Your task to perform on an android device: Open Google Image 0: 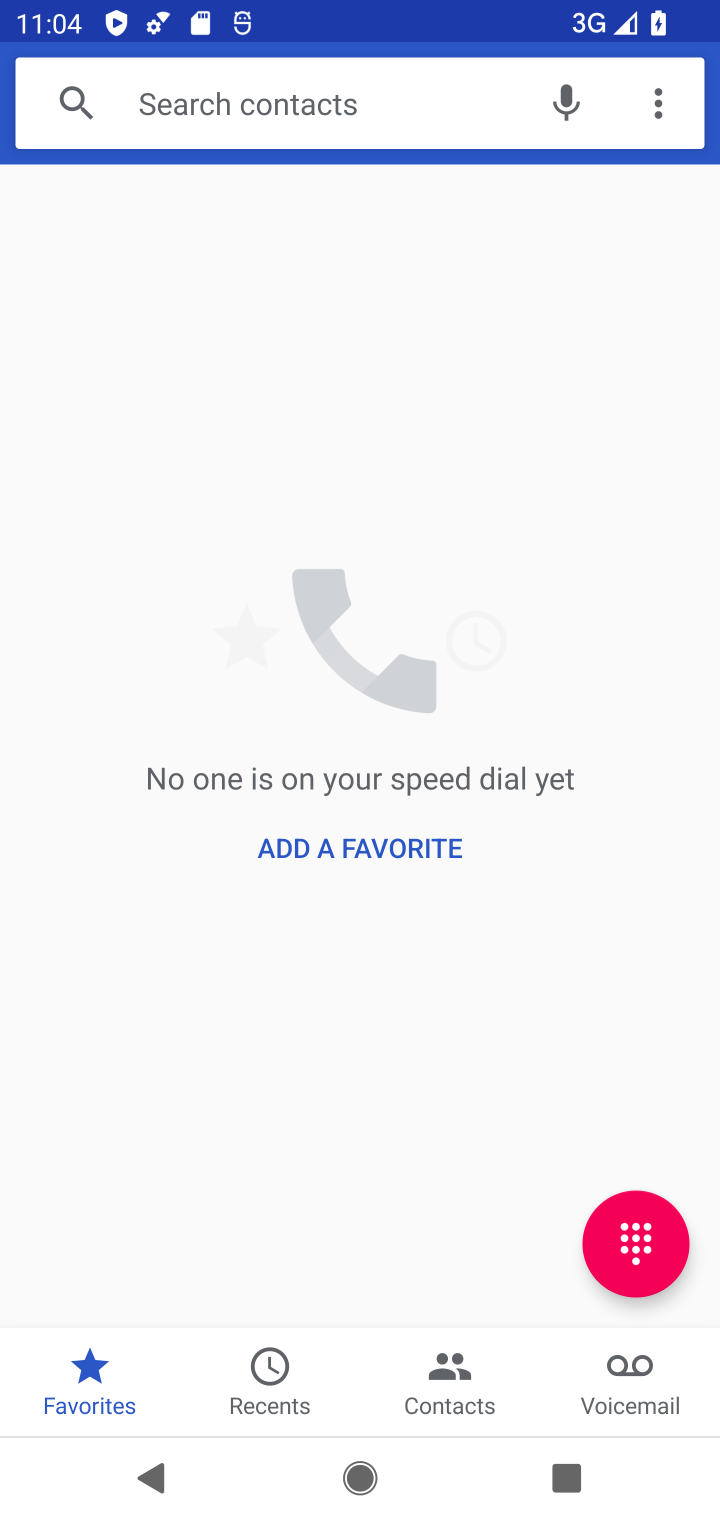
Step 0: press home button
Your task to perform on an android device: Open Google Image 1: 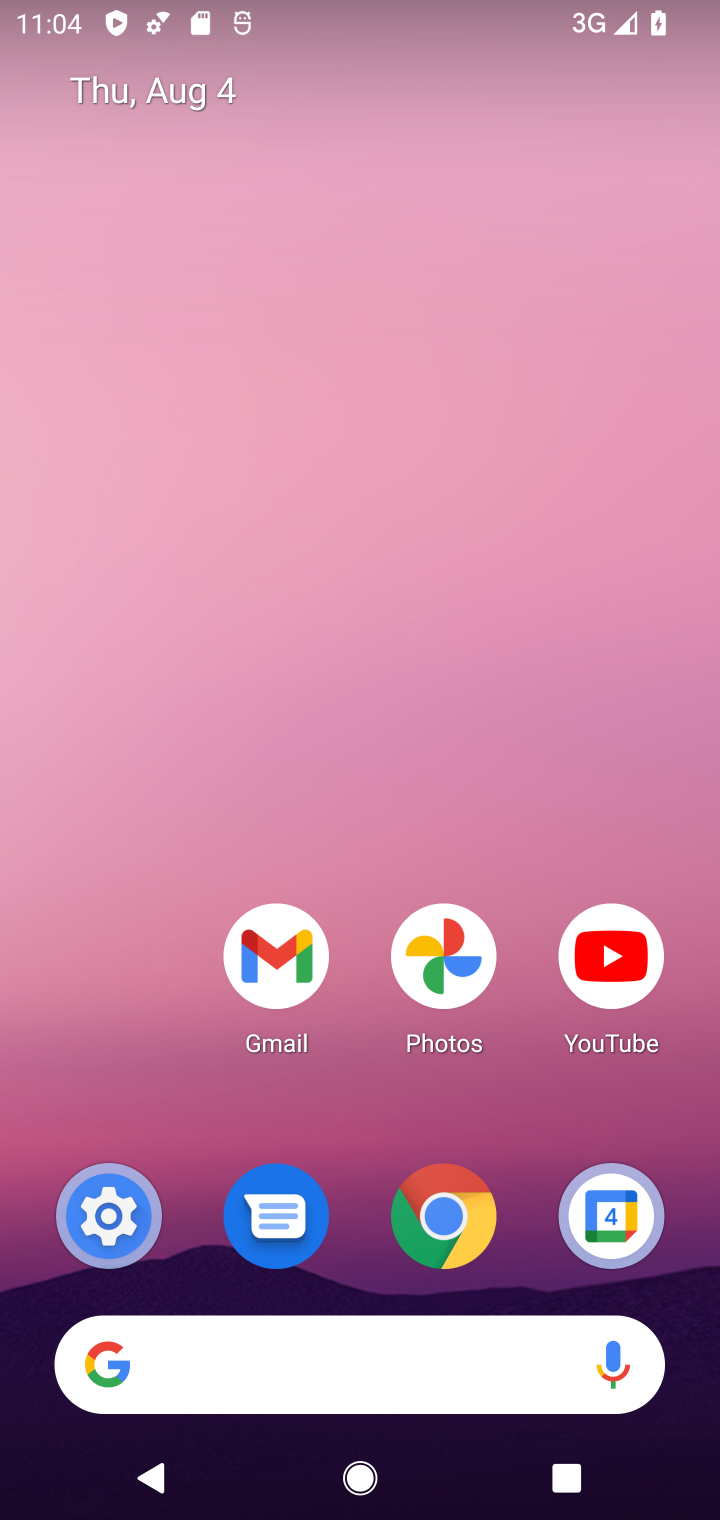
Step 1: click (202, 1357)
Your task to perform on an android device: Open Google Image 2: 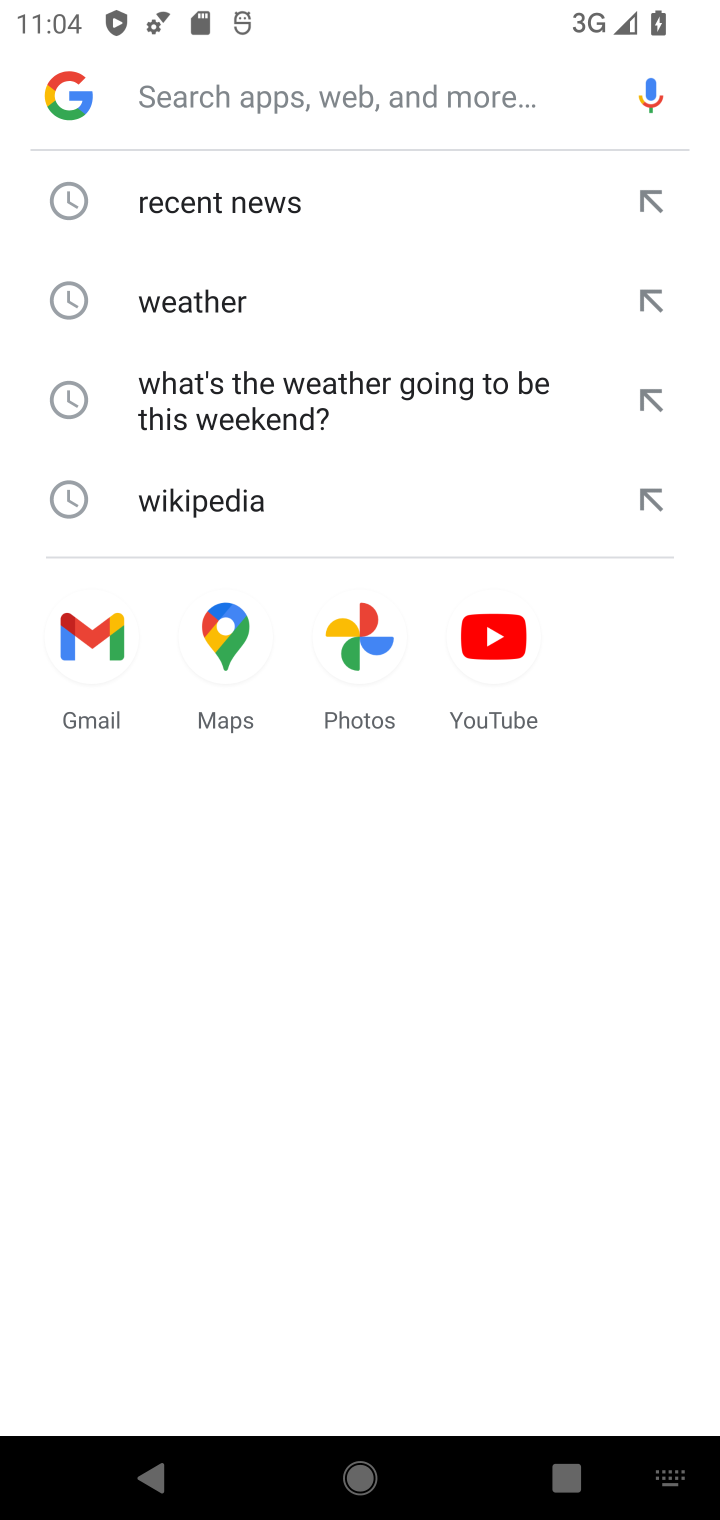
Step 2: click (52, 81)
Your task to perform on an android device: Open Google Image 3: 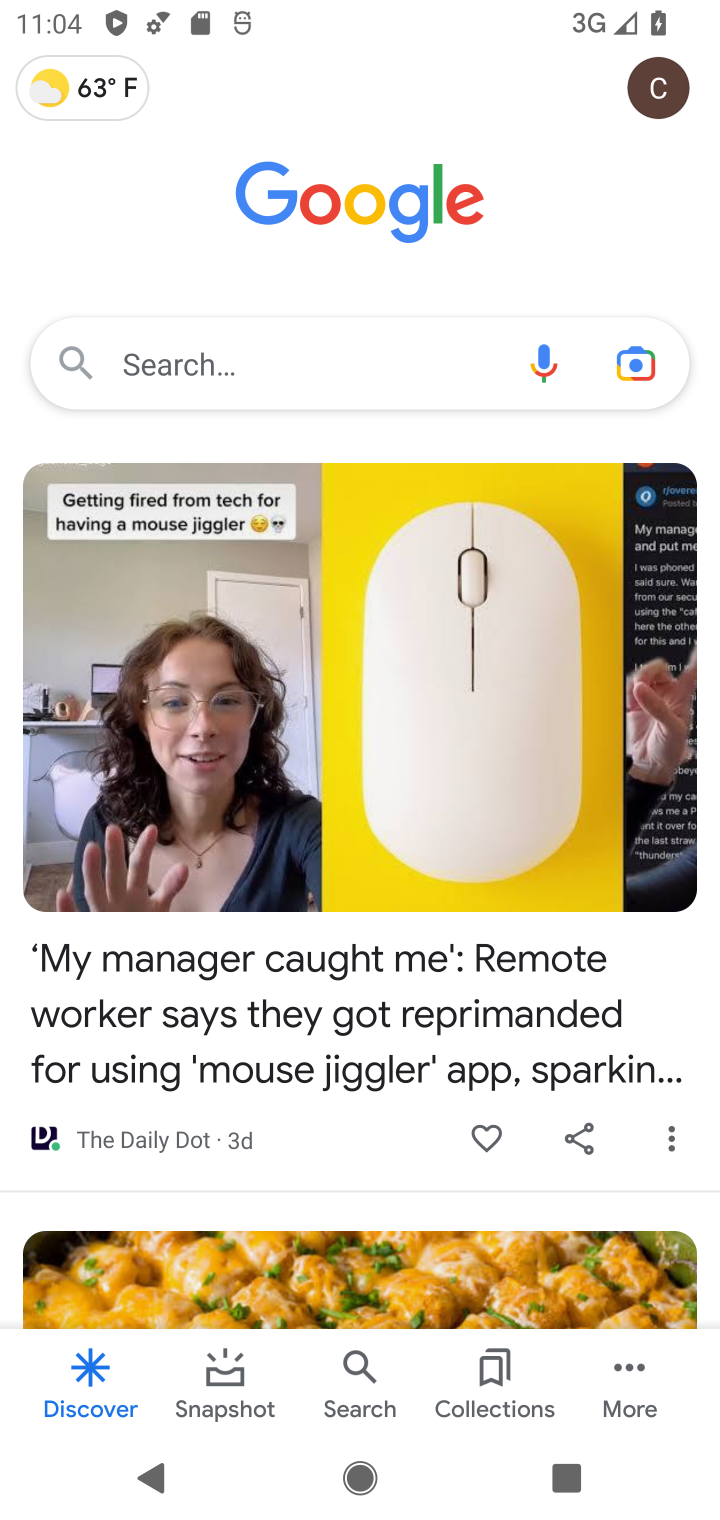
Step 3: task complete